Your task to perform on an android device: Search for the best gaming monitor on Best Buy Image 0: 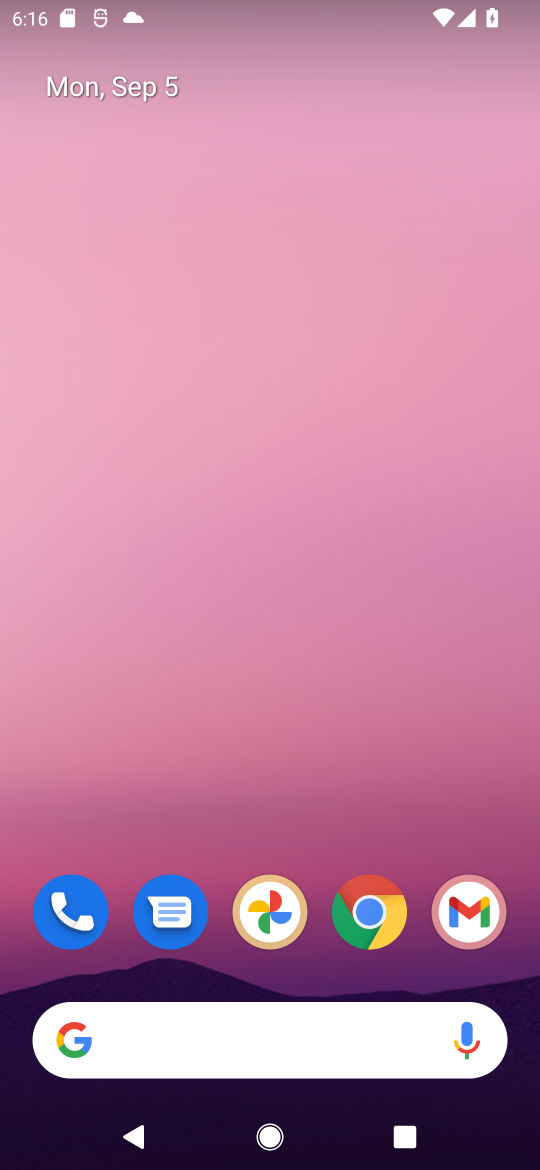
Step 0: click (373, 924)
Your task to perform on an android device: Search for the best gaming monitor on Best Buy Image 1: 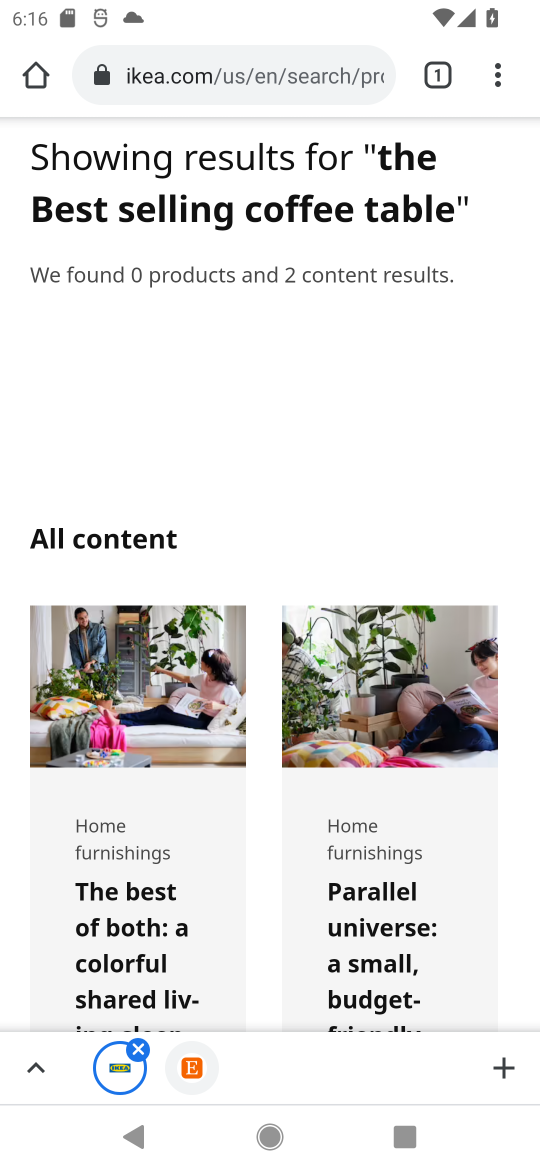
Step 1: drag from (283, 601) to (282, 677)
Your task to perform on an android device: Search for the best gaming monitor on Best Buy Image 2: 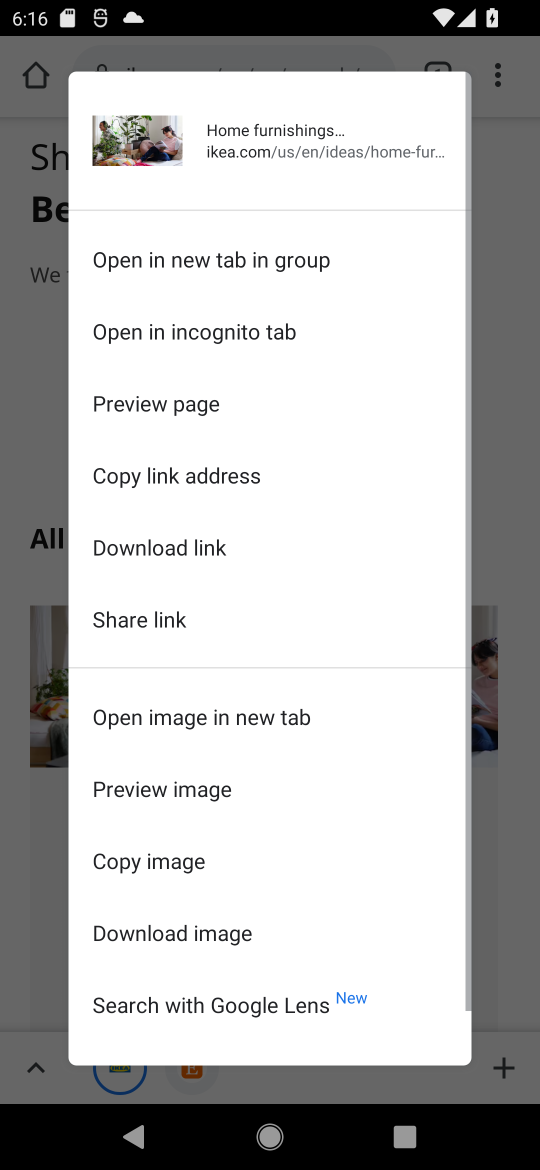
Step 2: click (29, 238)
Your task to perform on an android device: Search for the best gaming monitor on Best Buy Image 3: 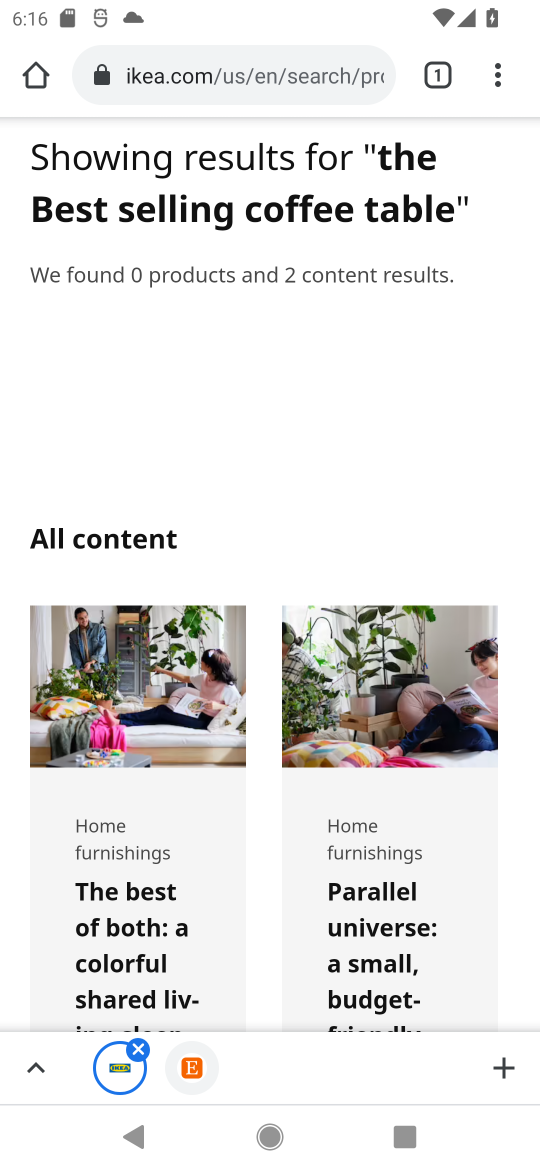
Step 3: click (206, 80)
Your task to perform on an android device: Search for the best gaming monitor on Best Buy Image 4: 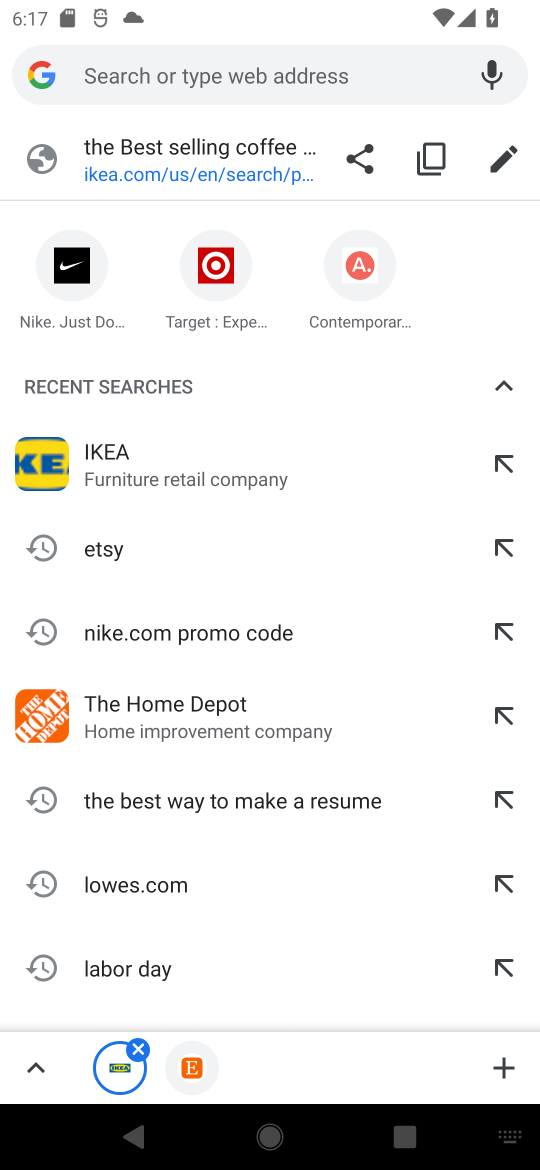
Step 4: type "best Buy"
Your task to perform on an android device: Search for the best gaming monitor on Best Buy Image 5: 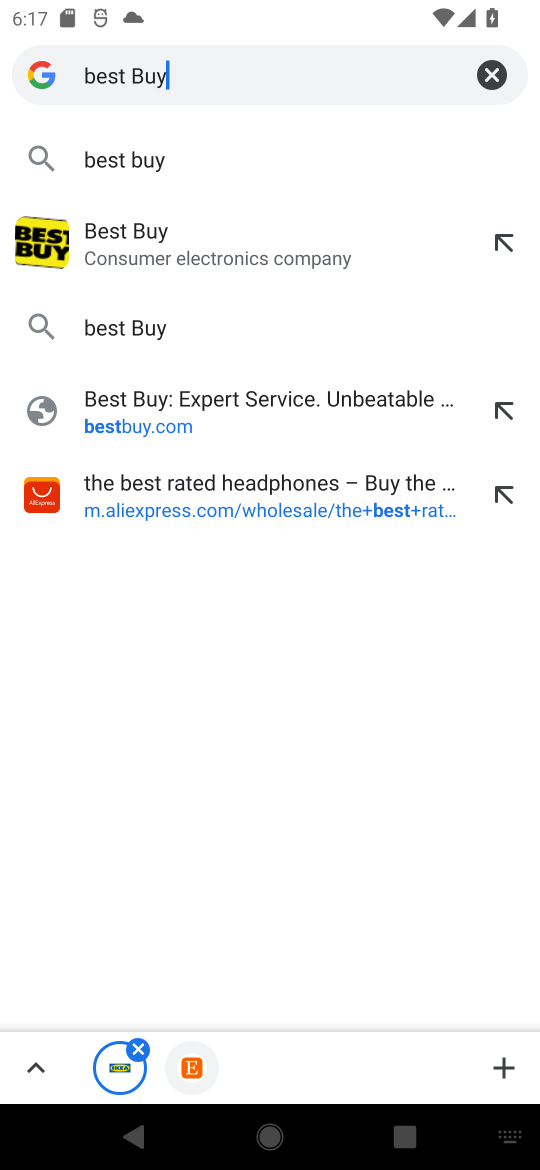
Step 5: click (152, 238)
Your task to perform on an android device: Search for the best gaming monitor on Best Buy Image 6: 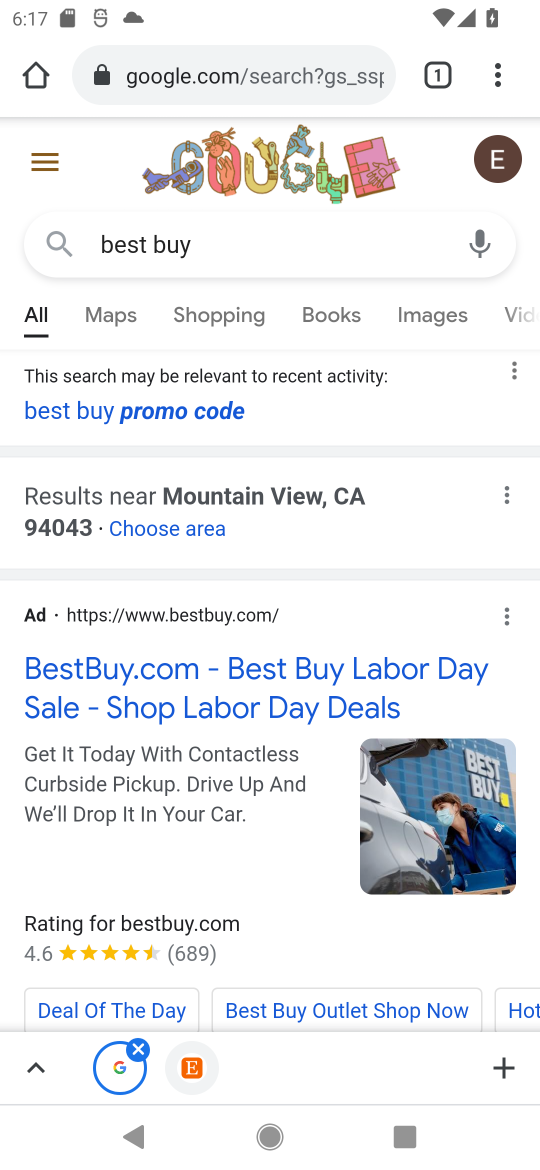
Step 6: click (129, 667)
Your task to perform on an android device: Search for the best gaming monitor on Best Buy Image 7: 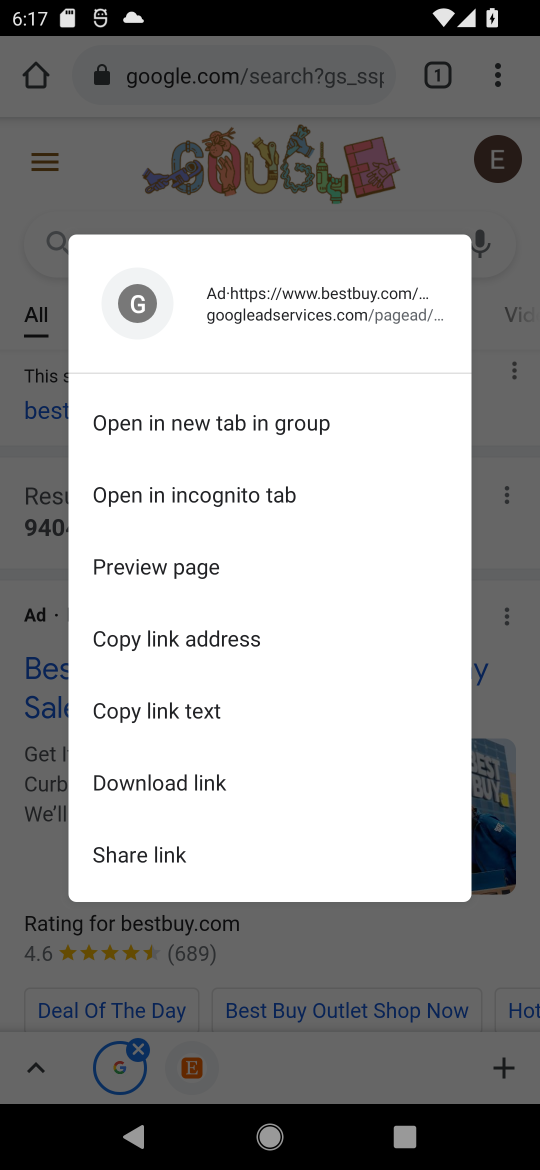
Step 7: click (38, 707)
Your task to perform on an android device: Search for the best gaming monitor on Best Buy Image 8: 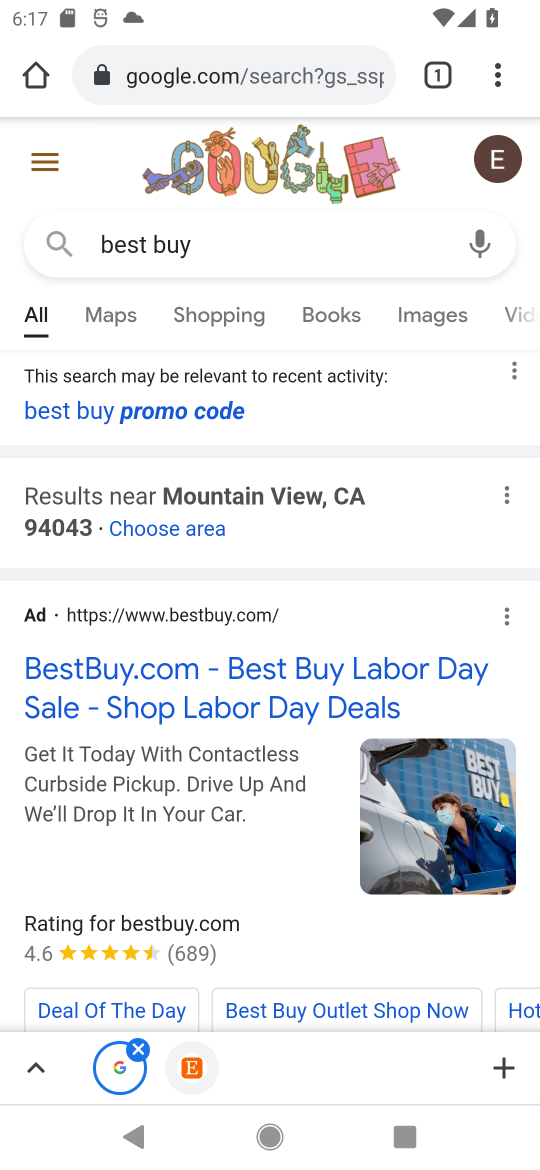
Step 8: click (326, 695)
Your task to perform on an android device: Search for the best gaming monitor on Best Buy Image 9: 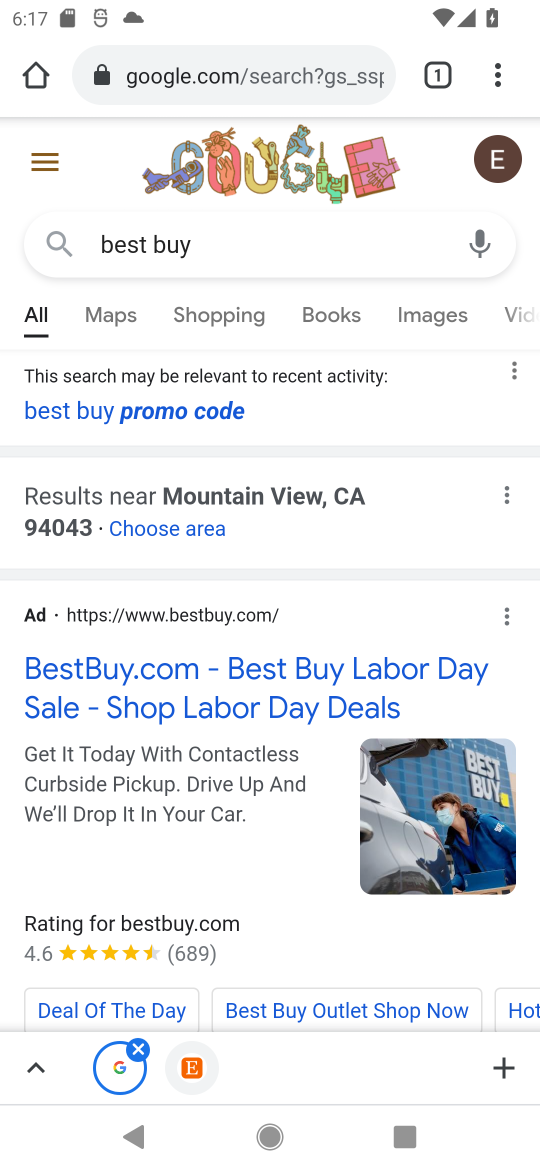
Step 9: click (326, 695)
Your task to perform on an android device: Search for the best gaming monitor on Best Buy Image 10: 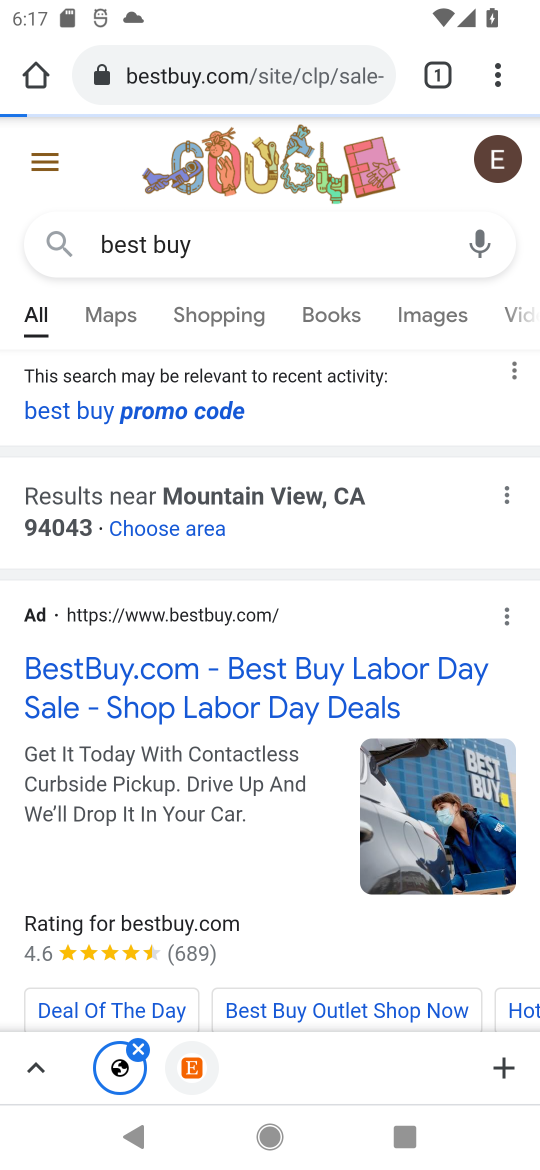
Step 10: click (168, 683)
Your task to perform on an android device: Search for the best gaming monitor on Best Buy Image 11: 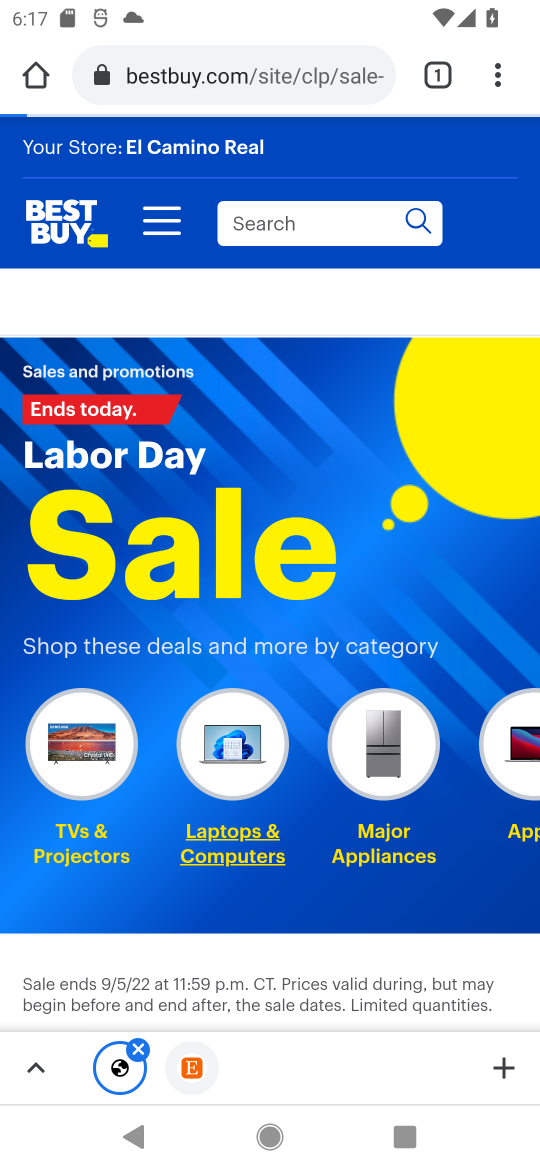
Step 11: click (289, 226)
Your task to perform on an android device: Search for the best gaming monitor on Best Buy Image 12: 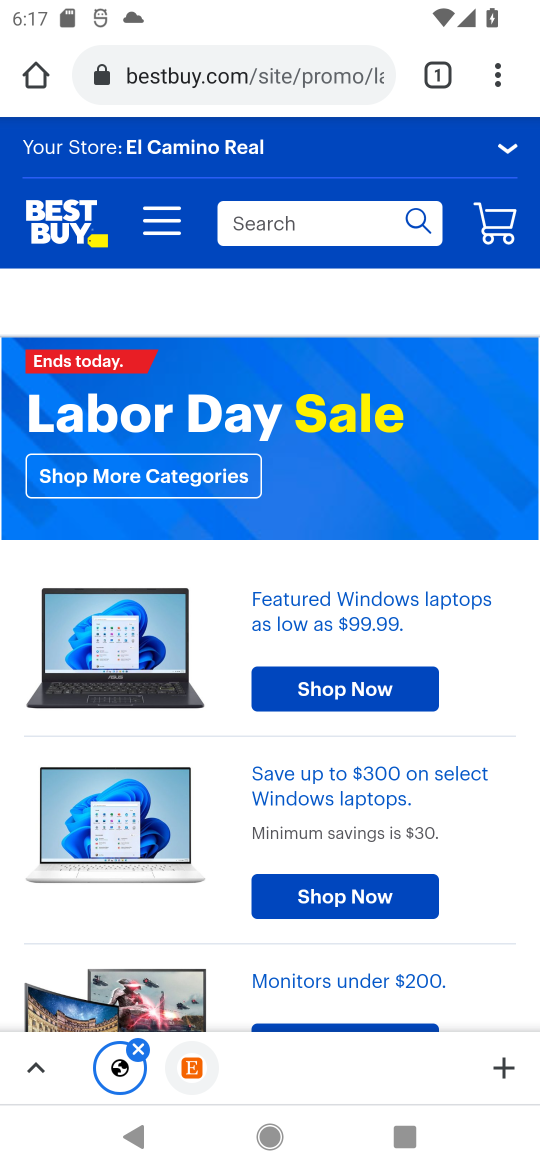
Step 12: click (249, 217)
Your task to perform on an android device: Search for the best gaming monitor on Best Buy Image 13: 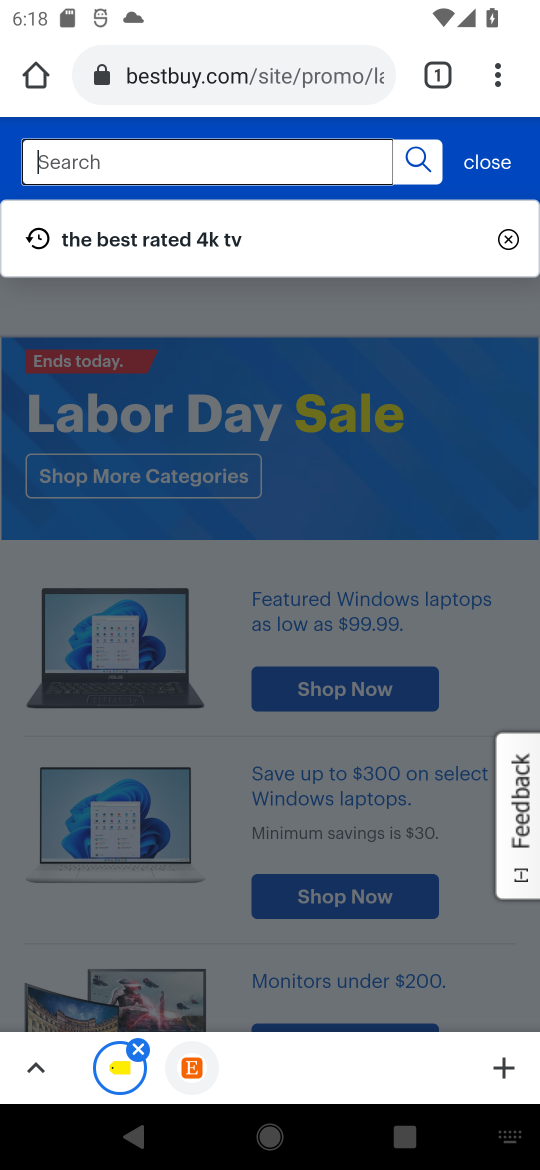
Step 13: type "the best gaming monitor "
Your task to perform on an android device: Search for the best gaming monitor on Best Buy Image 14: 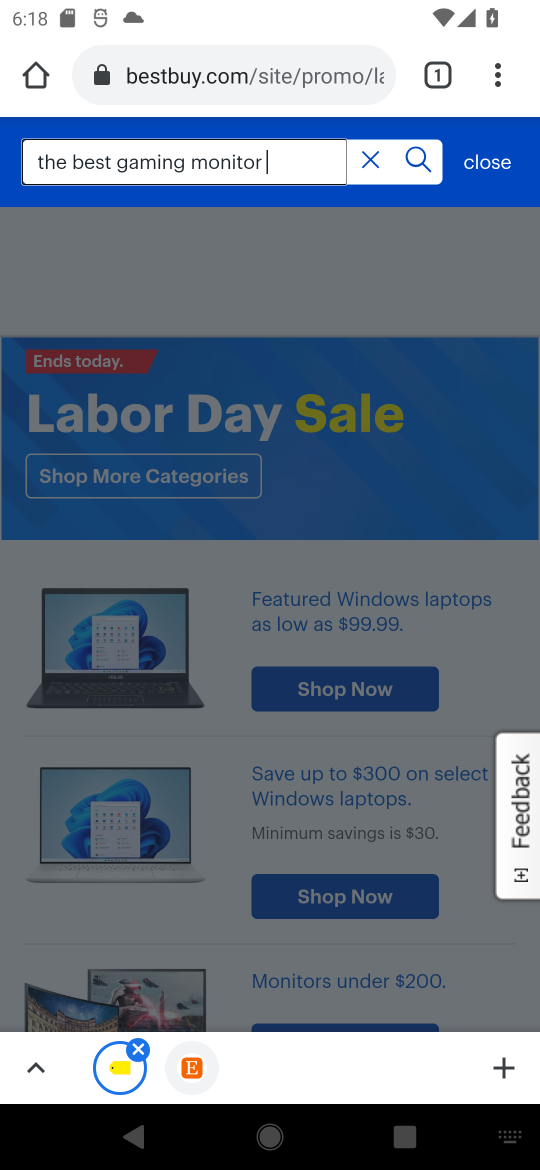
Step 14: click (409, 159)
Your task to perform on an android device: Search for the best gaming monitor on Best Buy Image 15: 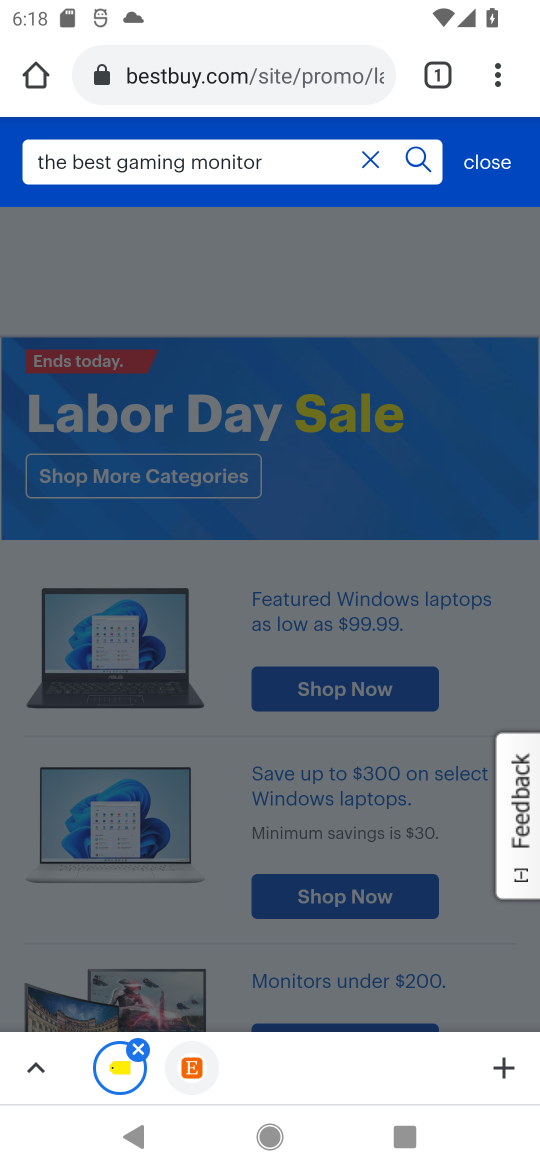
Step 15: task complete